Your task to perform on an android device: Open settings on Google Maps Image 0: 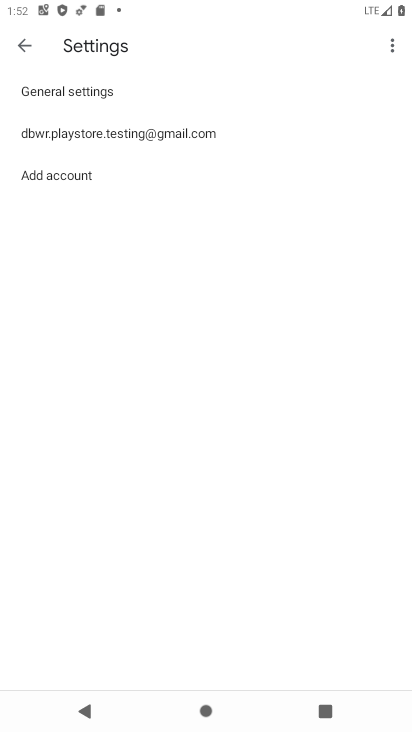
Step 0: press home button
Your task to perform on an android device: Open settings on Google Maps Image 1: 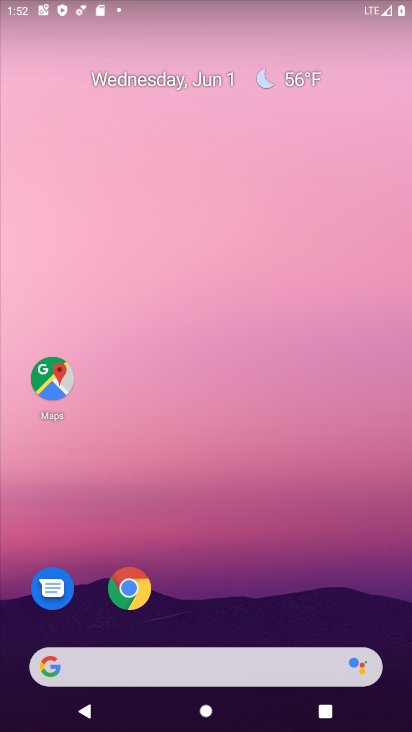
Step 1: click (66, 376)
Your task to perform on an android device: Open settings on Google Maps Image 2: 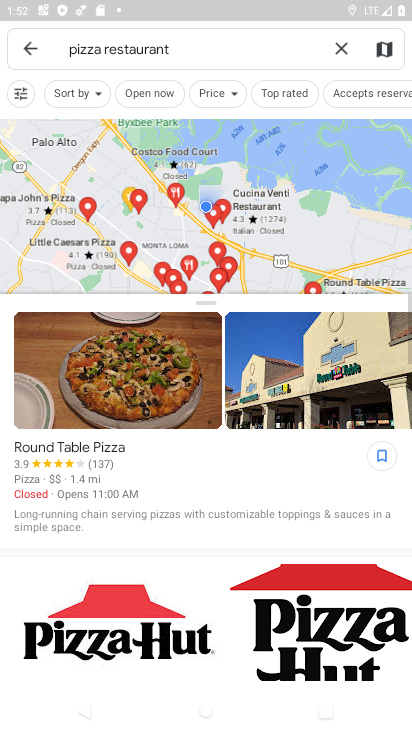
Step 2: click (28, 46)
Your task to perform on an android device: Open settings on Google Maps Image 3: 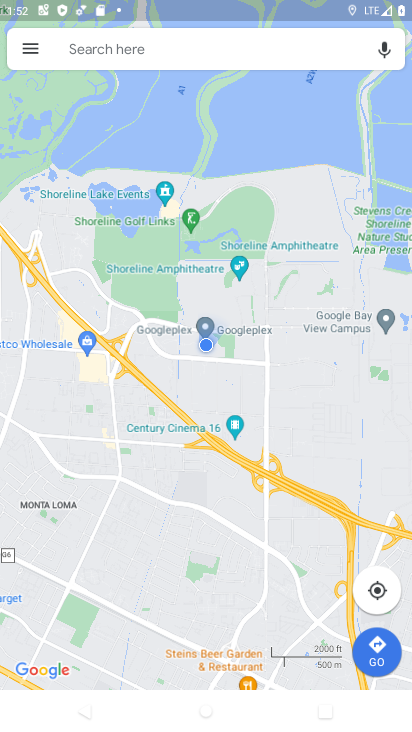
Step 3: click (33, 53)
Your task to perform on an android device: Open settings on Google Maps Image 4: 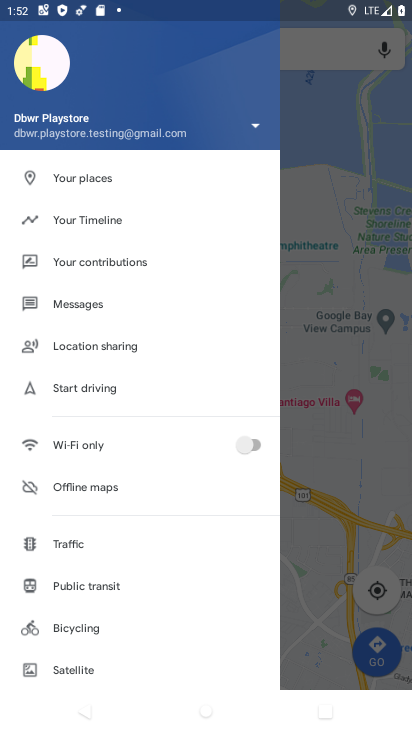
Step 4: drag from (139, 659) to (128, 160)
Your task to perform on an android device: Open settings on Google Maps Image 5: 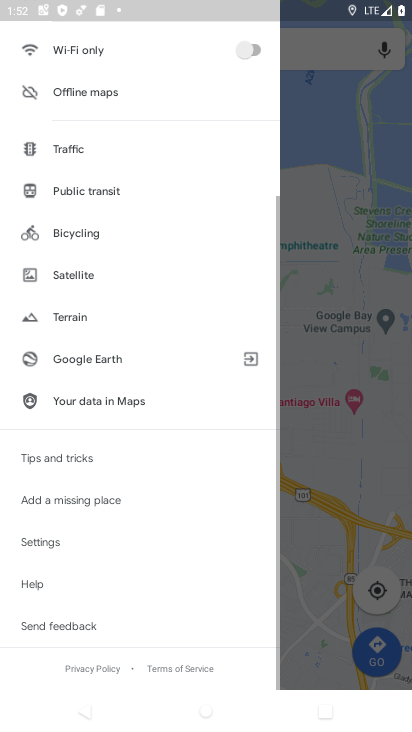
Step 5: click (60, 536)
Your task to perform on an android device: Open settings on Google Maps Image 6: 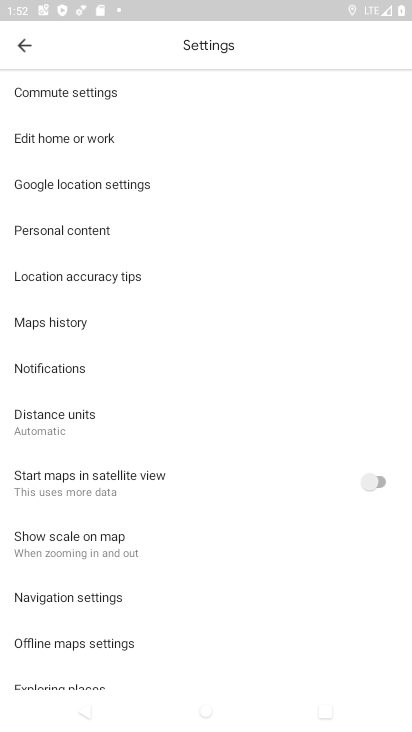
Step 6: task complete